Your task to perform on an android device: turn off sleep mode Image 0: 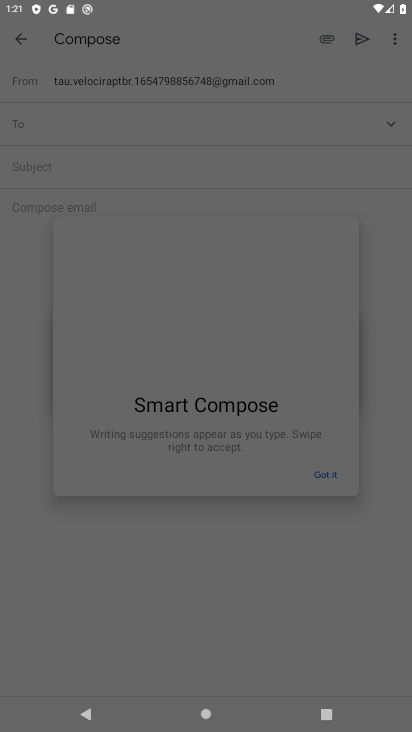
Step 0: press home button
Your task to perform on an android device: turn off sleep mode Image 1: 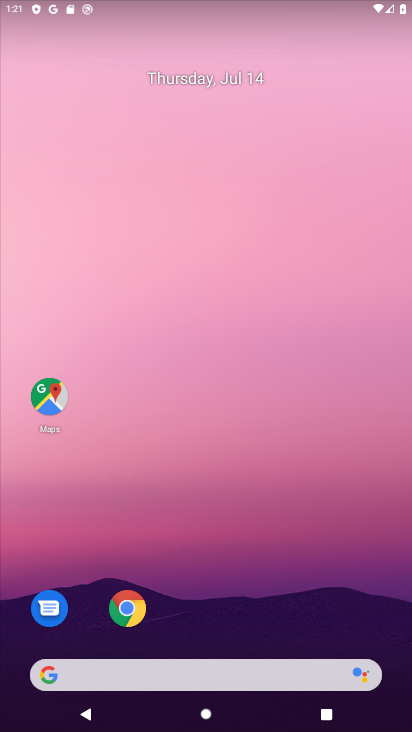
Step 1: drag from (216, 700) to (218, 157)
Your task to perform on an android device: turn off sleep mode Image 2: 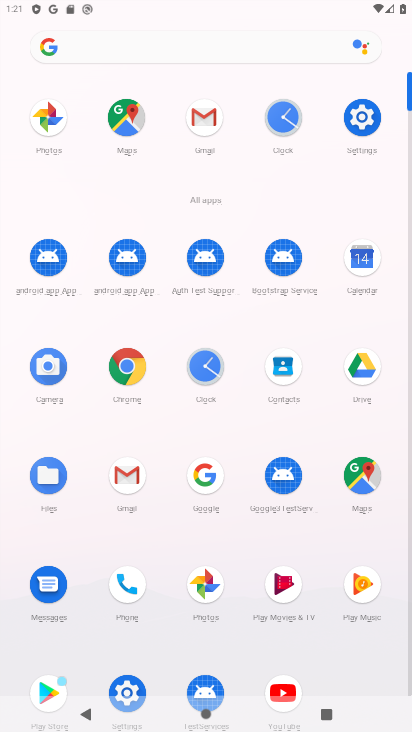
Step 2: click (351, 120)
Your task to perform on an android device: turn off sleep mode Image 3: 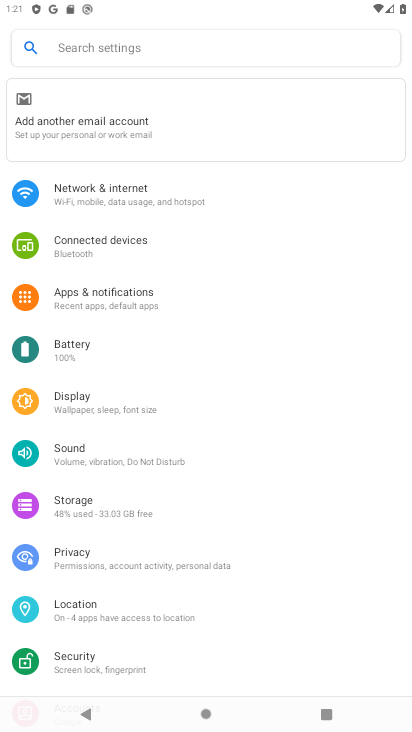
Step 3: click (82, 55)
Your task to perform on an android device: turn off sleep mode Image 4: 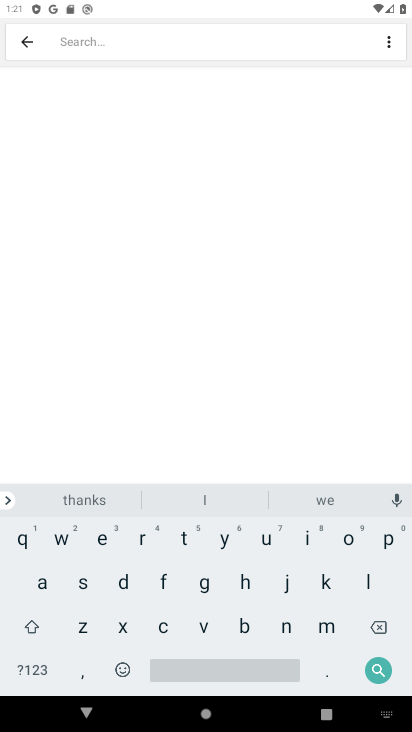
Step 4: click (83, 580)
Your task to perform on an android device: turn off sleep mode Image 5: 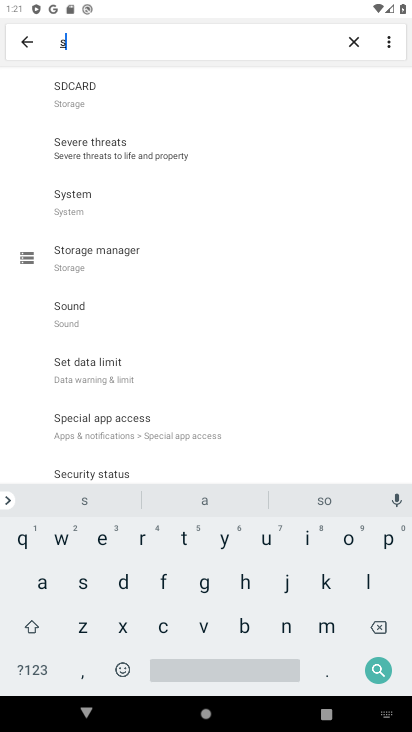
Step 5: click (362, 584)
Your task to perform on an android device: turn off sleep mode Image 6: 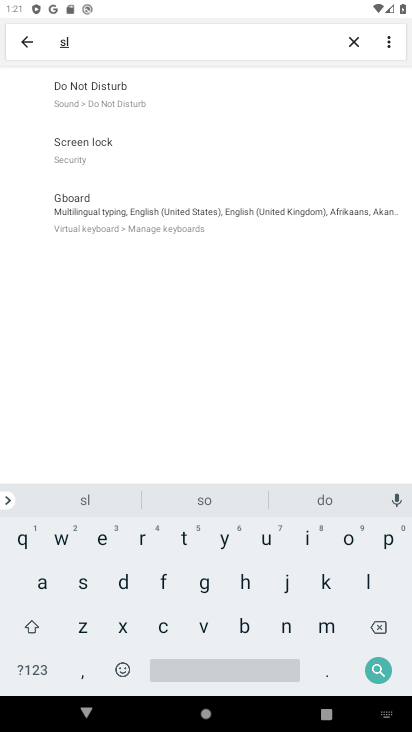
Step 6: click (102, 92)
Your task to perform on an android device: turn off sleep mode Image 7: 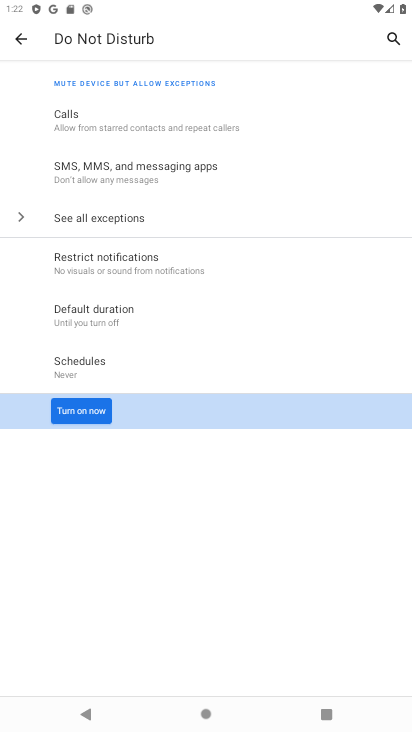
Step 7: click (88, 410)
Your task to perform on an android device: turn off sleep mode Image 8: 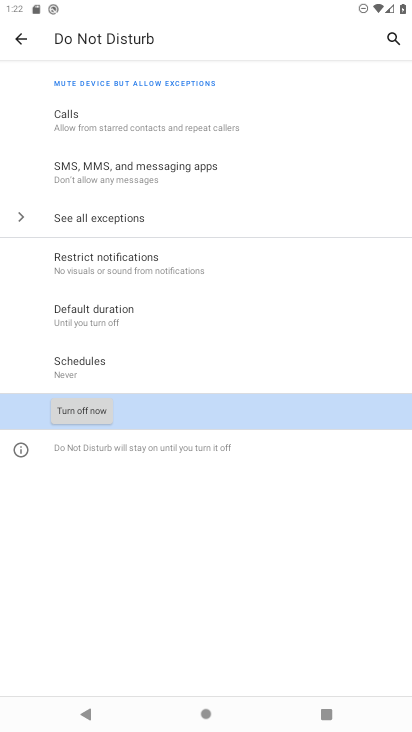
Step 8: click (88, 410)
Your task to perform on an android device: turn off sleep mode Image 9: 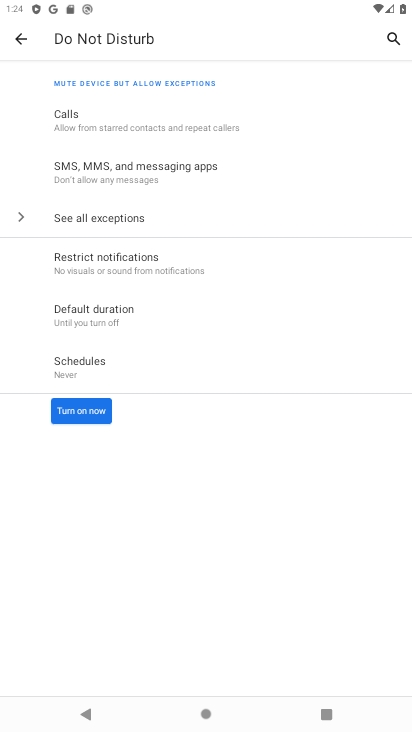
Step 9: task complete